Your task to perform on an android device: find photos in the google photos app Image 0: 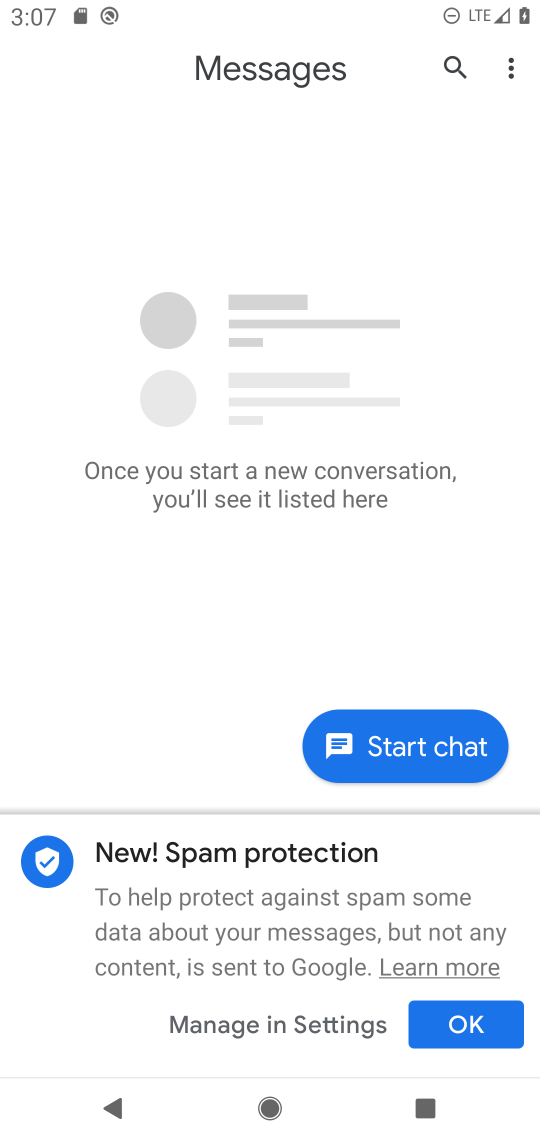
Step 0: press home button
Your task to perform on an android device: find photos in the google photos app Image 1: 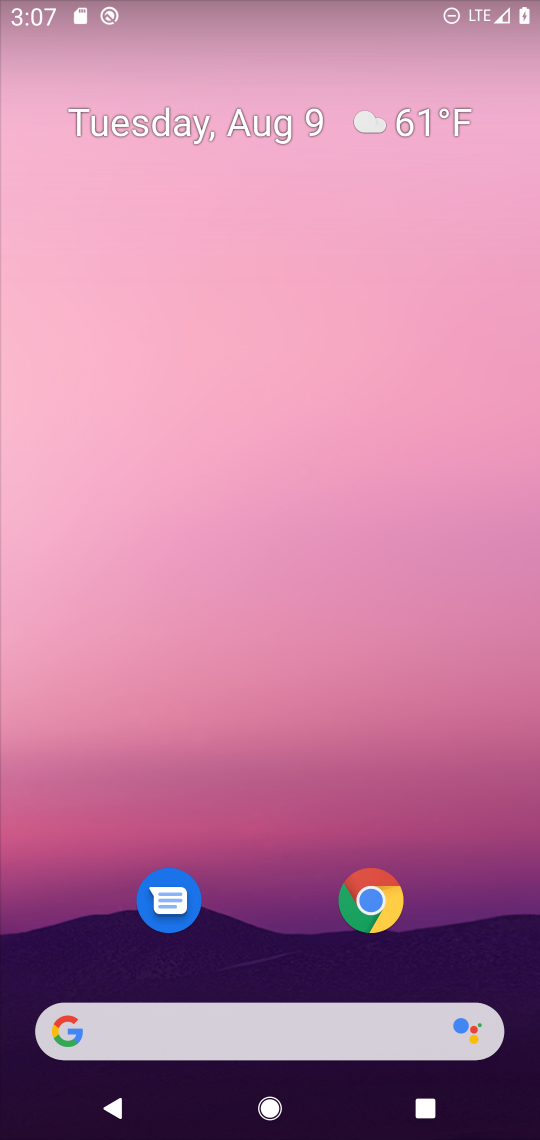
Step 1: drag from (435, 776) to (434, 127)
Your task to perform on an android device: find photos in the google photos app Image 2: 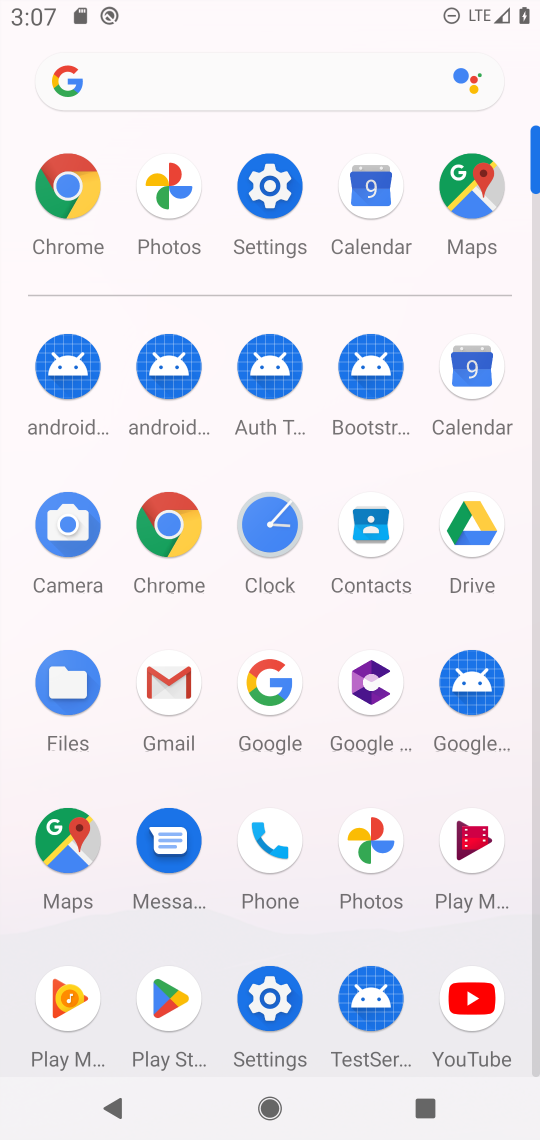
Step 2: click (369, 839)
Your task to perform on an android device: find photos in the google photos app Image 3: 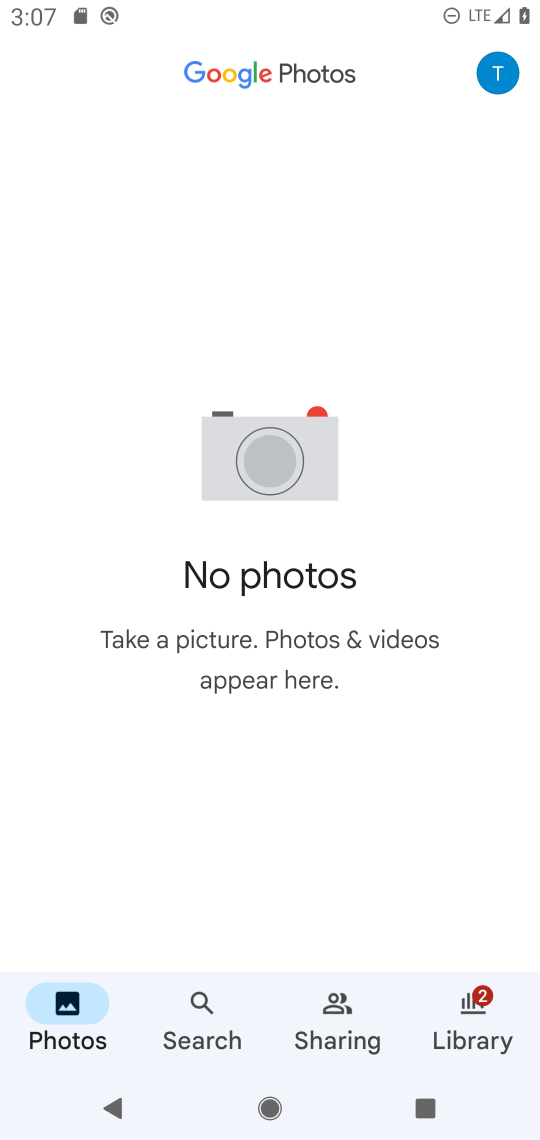
Step 3: task complete